Your task to perform on an android device: Open Google Chrome Image 0: 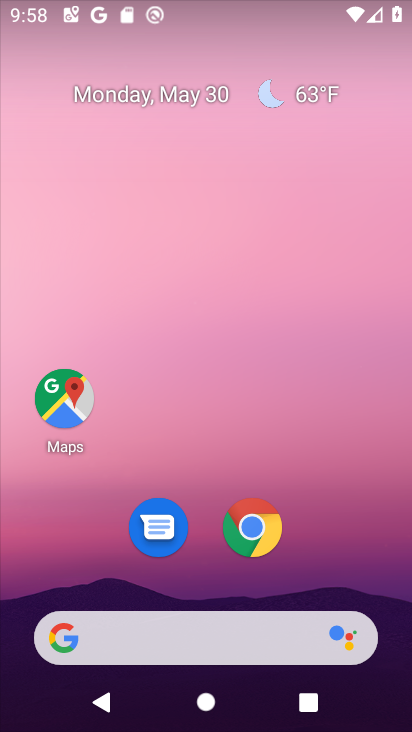
Step 0: drag from (296, 536) to (277, 151)
Your task to perform on an android device: Open Google Chrome Image 1: 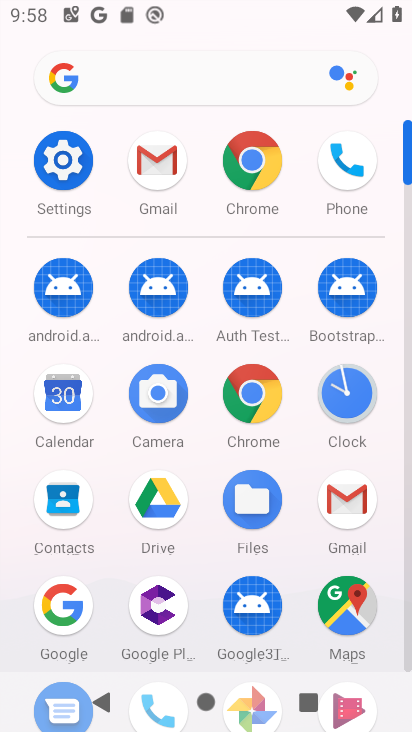
Step 1: click (255, 389)
Your task to perform on an android device: Open Google Chrome Image 2: 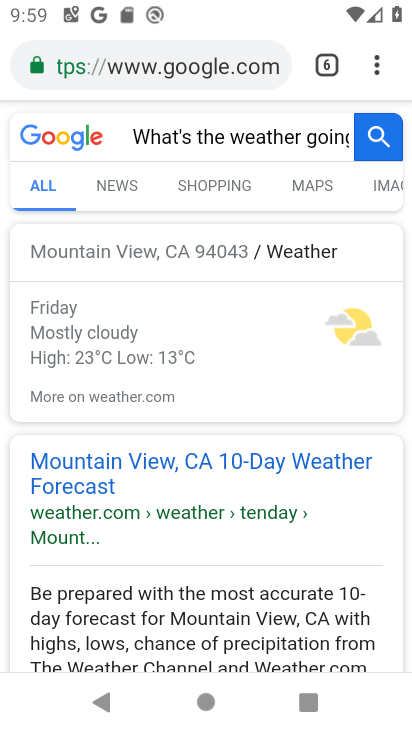
Step 2: task complete